Your task to perform on an android device: add a label to a message in the gmail app Image 0: 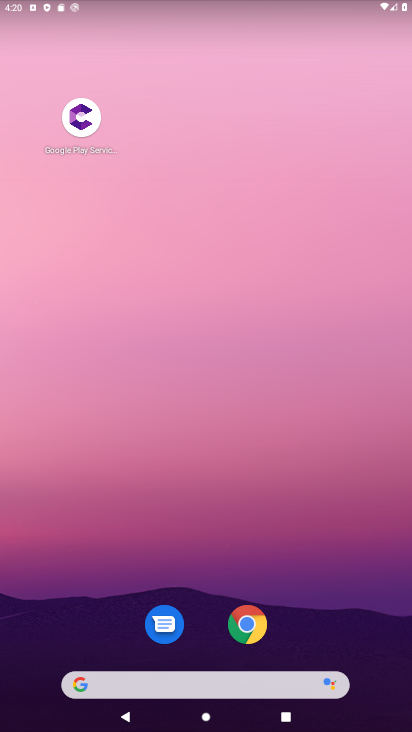
Step 0: drag from (204, 634) to (252, 107)
Your task to perform on an android device: add a label to a message in the gmail app Image 1: 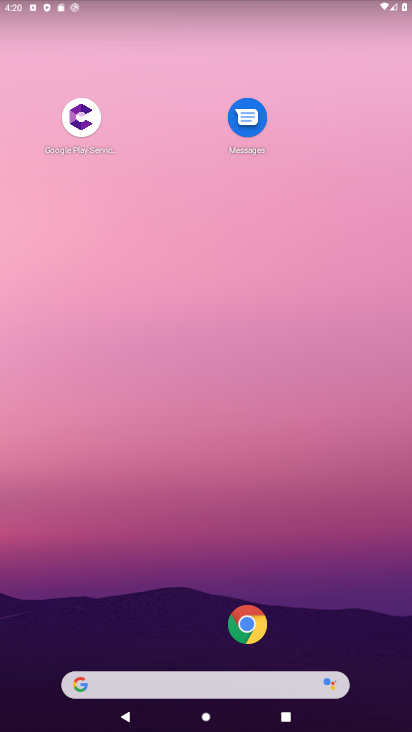
Step 1: drag from (164, 638) to (230, 165)
Your task to perform on an android device: add a label to a message in the gmail app Image 2: 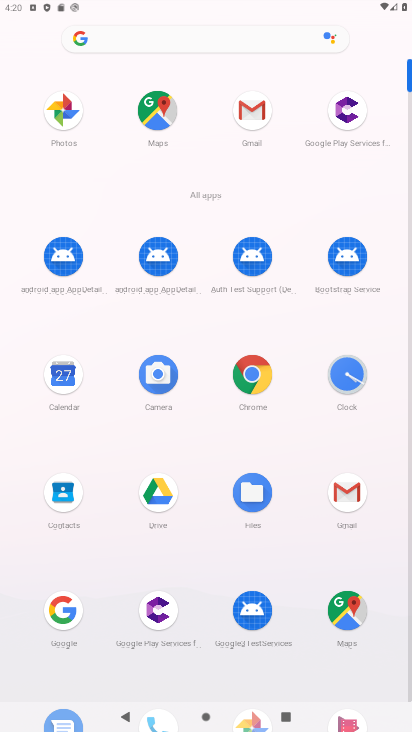
Step 2: click (258, 98)
Your task to perform on an android device: add a label to a message in the gmail app Image 3: 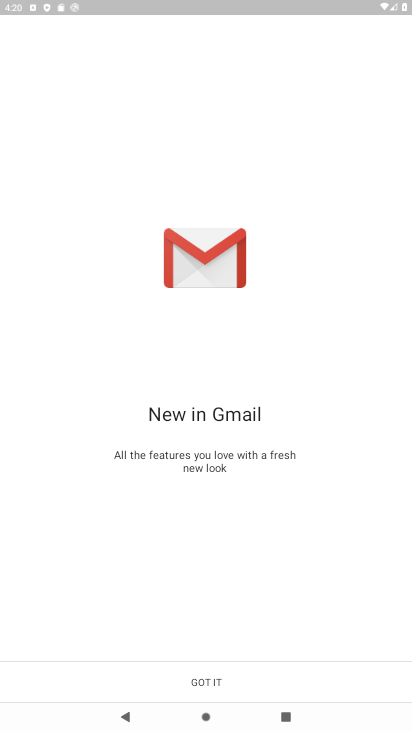
Step 3: click (220, 696)
Your task to perform on an android device: add a label to a message in the gmail app Image 4: 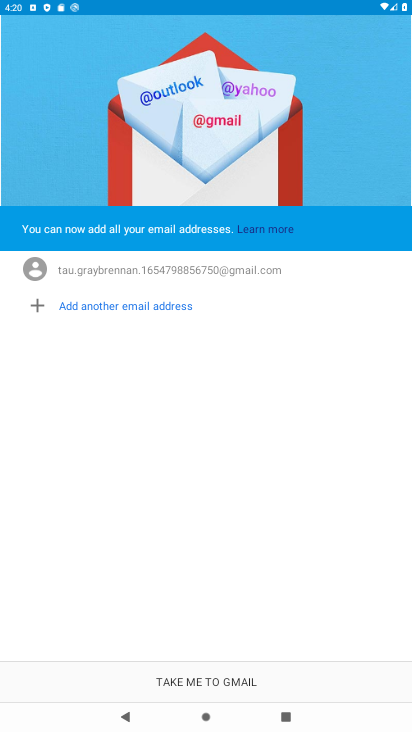
Step 4: click (220, 696)
Your task to perform on an android device: add a label to a message in the gmail app Image 5: 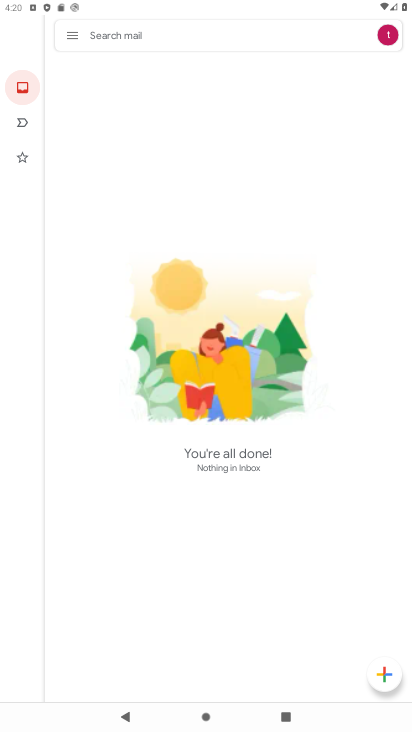
Step 5: task complete